Your task to perform on an android device: find photos in the google photos app Image 0: 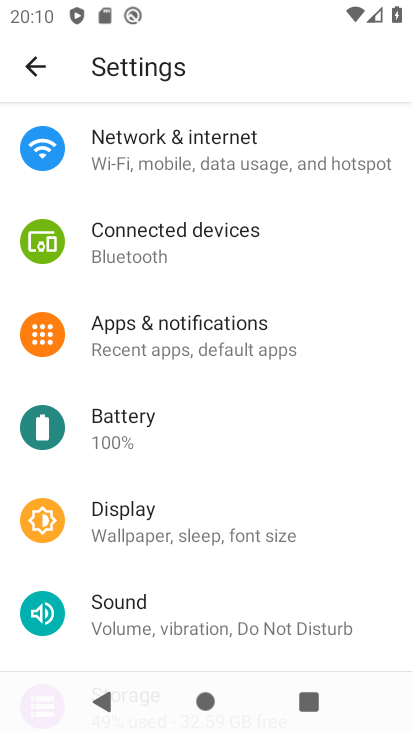
Step 0: press home button
Your task to perform on an android device: find photos in the google photos app Image 1: 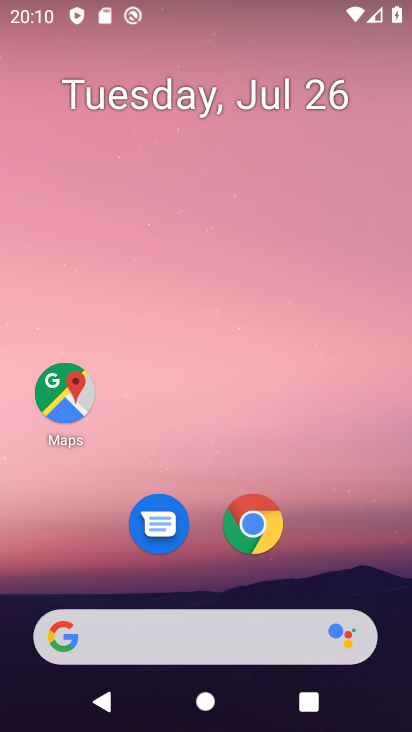
Step 1: drag from (202, 629) to (304, 186)
Your task to perform on an android device: find photos in the google photos app Image 2: 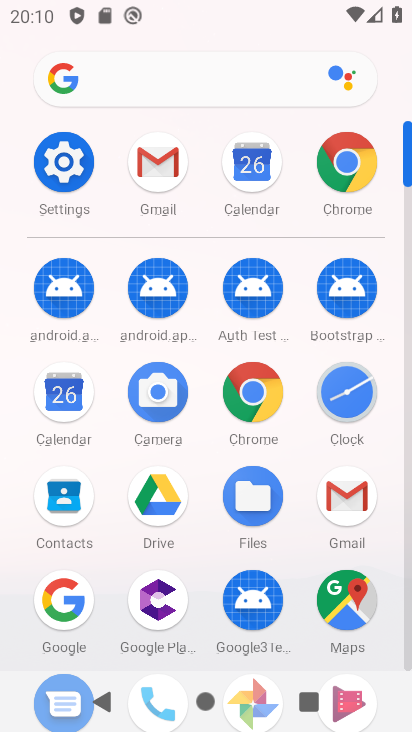
Step 2: drag from (191, 575) to (311, 86)
Your task to perform on an android device: find photos in the google photos app Image 3: 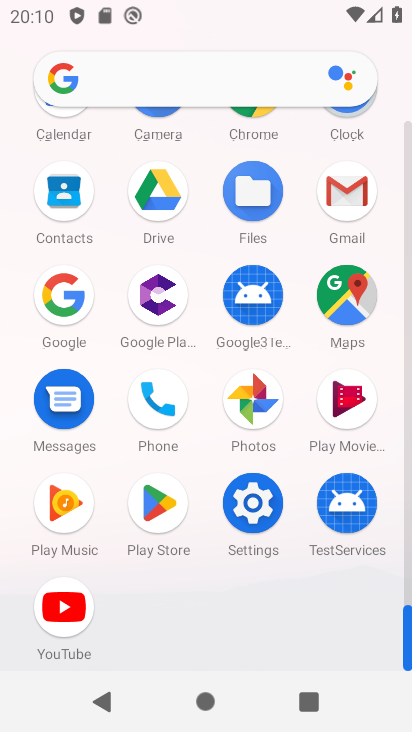
Step 3: click (247, 417)
Your task to perform on an android device: find photos in the google photos app Image 4: 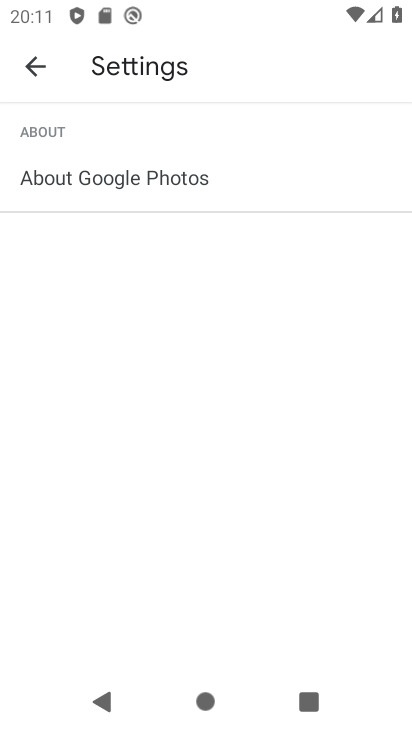
Step 4: click (26, 65)
Your task to perform on an android device: find photos in the google photos app Image 5: 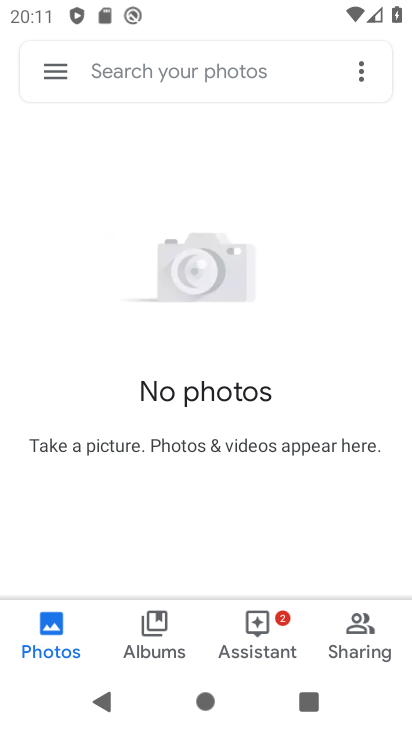
Step 5: task complete